Your task to perform on an android device: See recent photos Image 0: 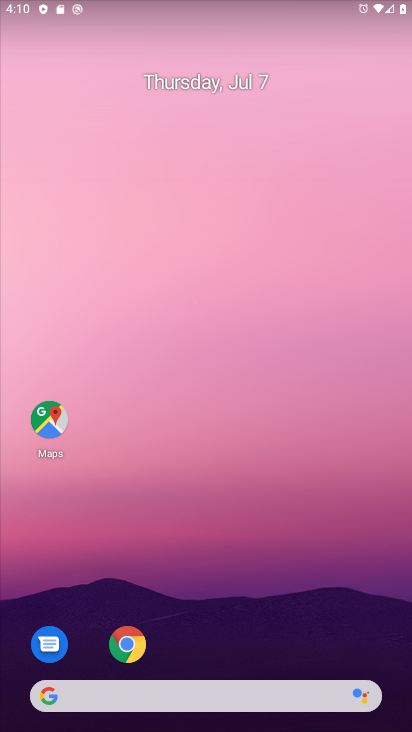
Step 0: drag from (233, 648) to (239, 164)
Your task to perform on an android device: See recent photos Image 1: 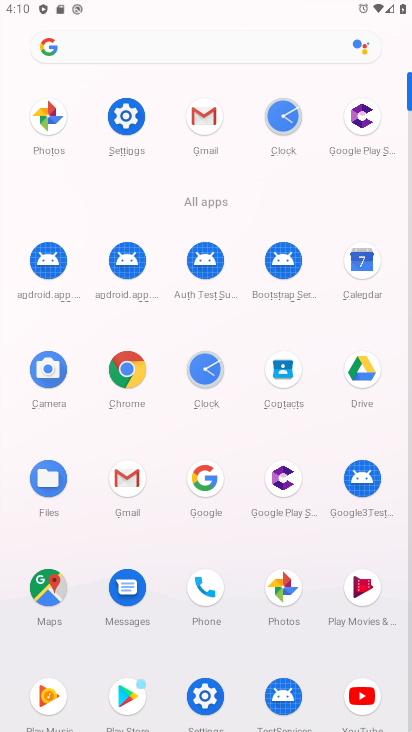
Step 1: click (49, 115)
Your task to perform on an android device: See recent photos Image 2: 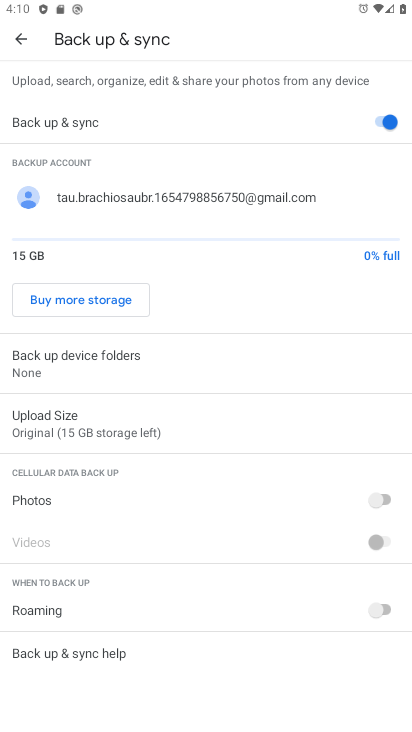
Step 2: press back button
Your task to perform on an android device: See recent photos Image 3: 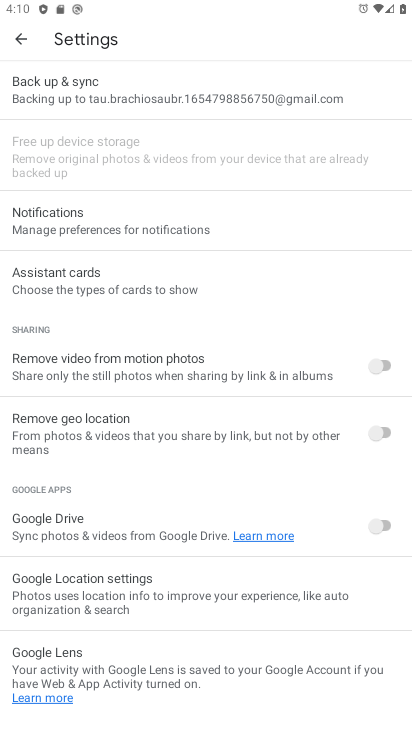
Step 3: press back button
Your task to perform on an android device: See recent photos Image 4: 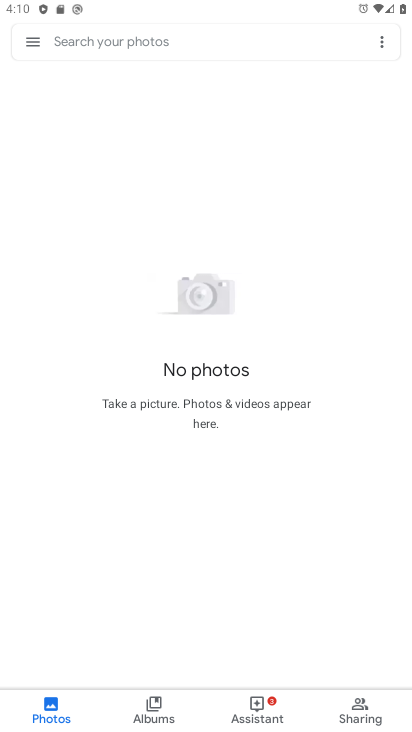
Step 4: click (148, 709)
Your task to perform on an android device: See recent photos Image 5: 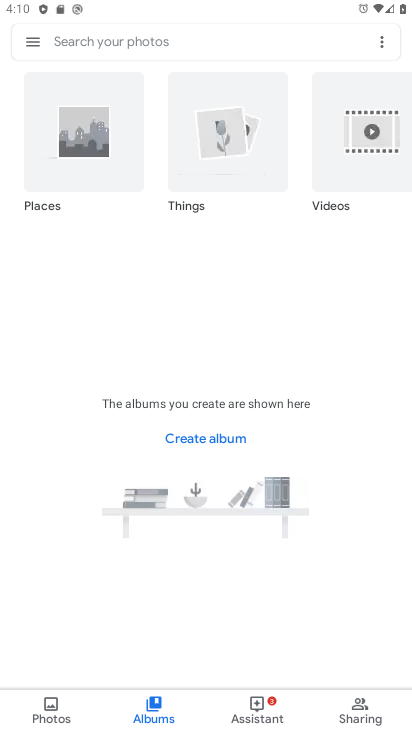
Step 5: click (355, 700)
Your task to perform on an android device: See recent photos Image 6: 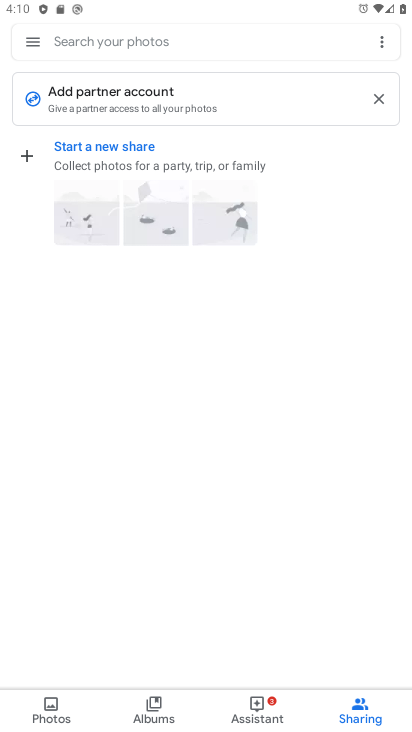
Step 6: click (44, 705)
Your task to perform on an android device: See recent photos Image 7: 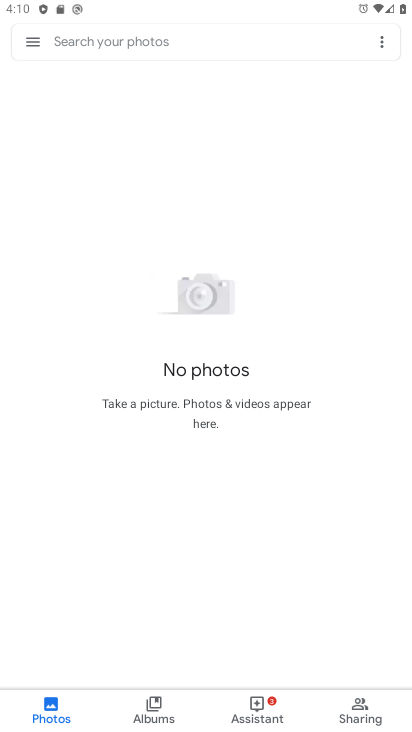
Step 7: task complete